Your task to perform on an android device: uninstall "Pluto TV - Live TV and Movies" Image 0: 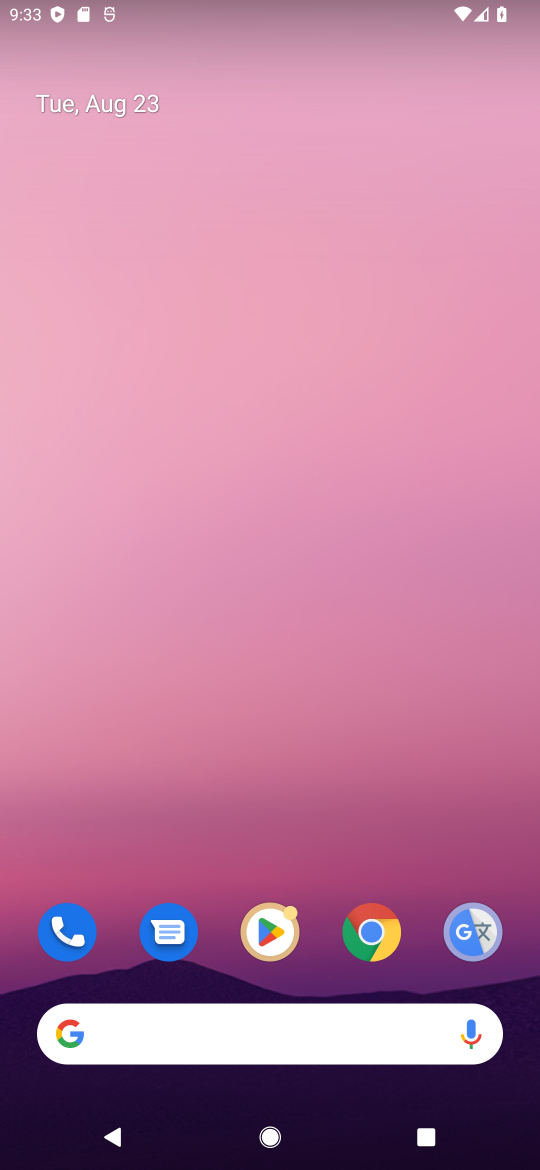
Step 0: click (262, 925)
Your task to perform on an android device: uninstall "Pluto TV - Live TV and Movies" Image 1: 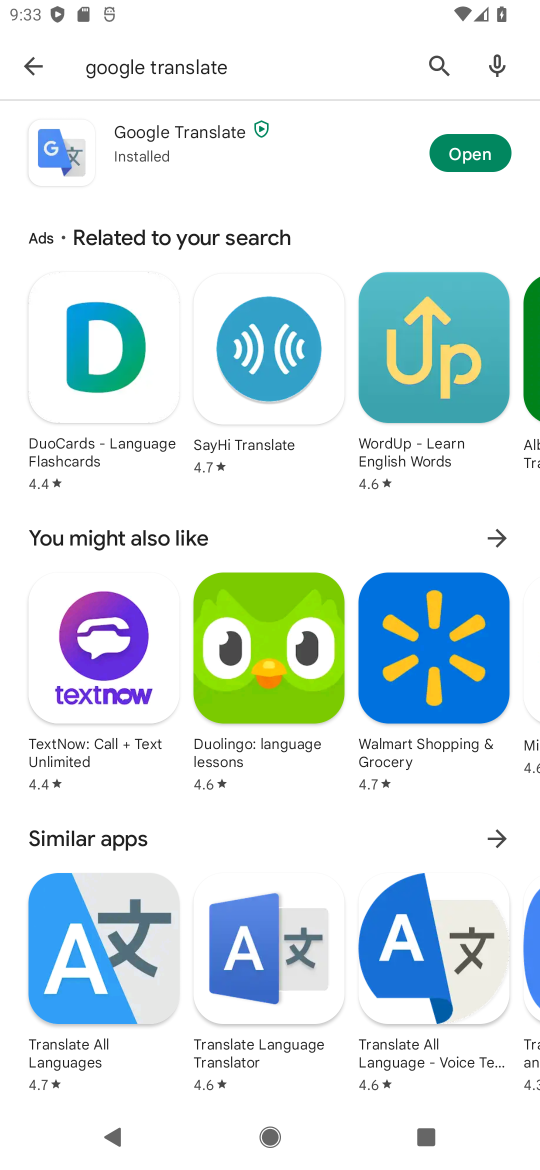
Step 1: click (440, 64)
Your task to perform on an android device: uninstall "Pluto TV - Live TV and Movies" Image 2: 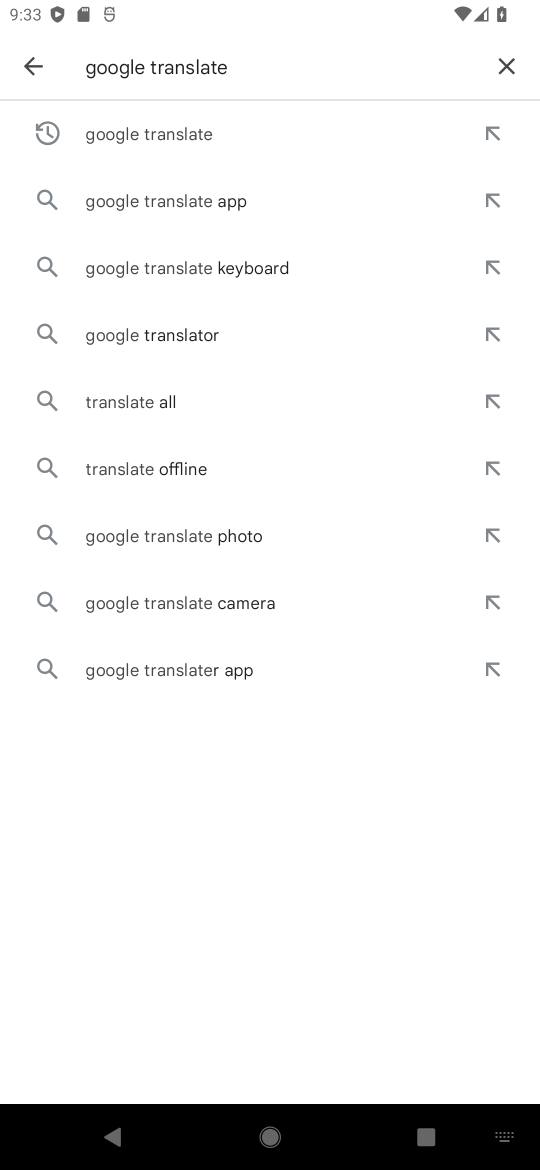
Step 2: click (514, 61)
Your task to perform on an android device: uninstall "Pluto TV - Live TV and Movies" Image 3: 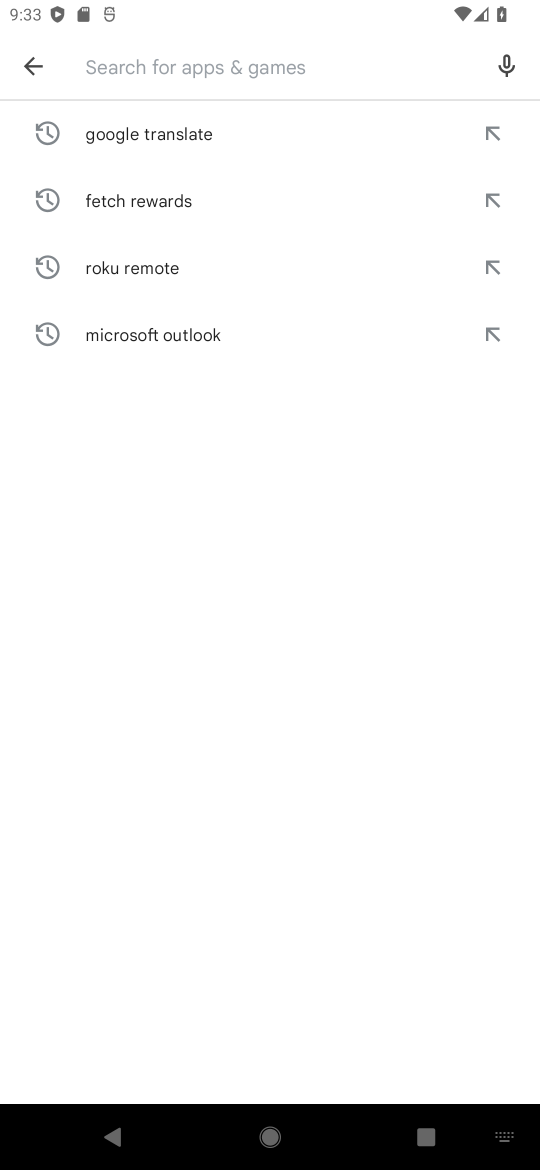
Step 3: click (286, 63)
Your task to perform on an android device: uninstall "Pluto TV - Live TV and Movies" Image 4: 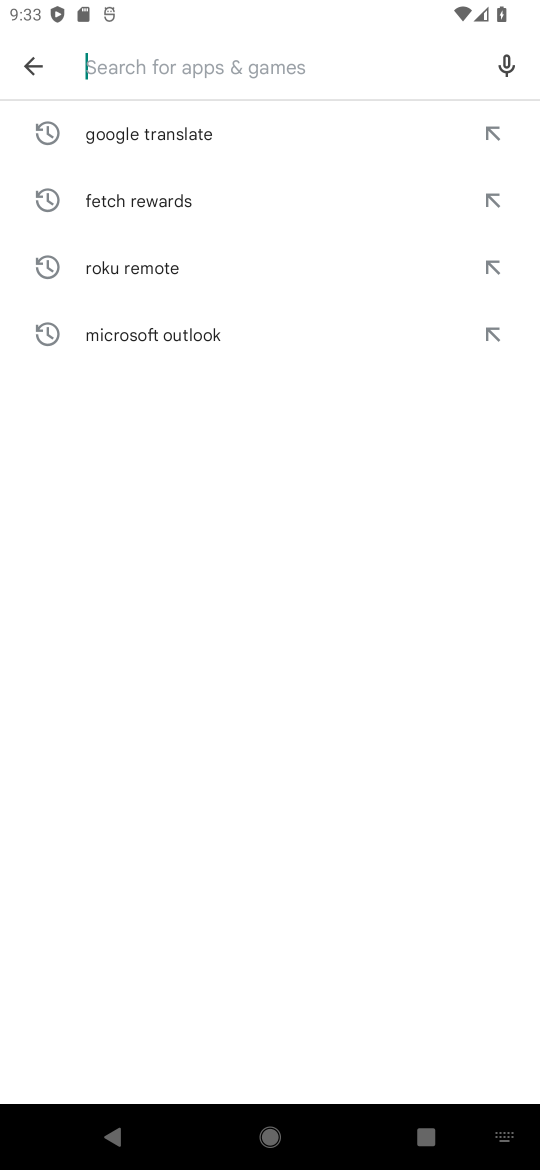
Step 4: type "pluto tv"
Your task to perform on an android device: uninstall "Pluto TV - Live TV and Movies" Image 5: 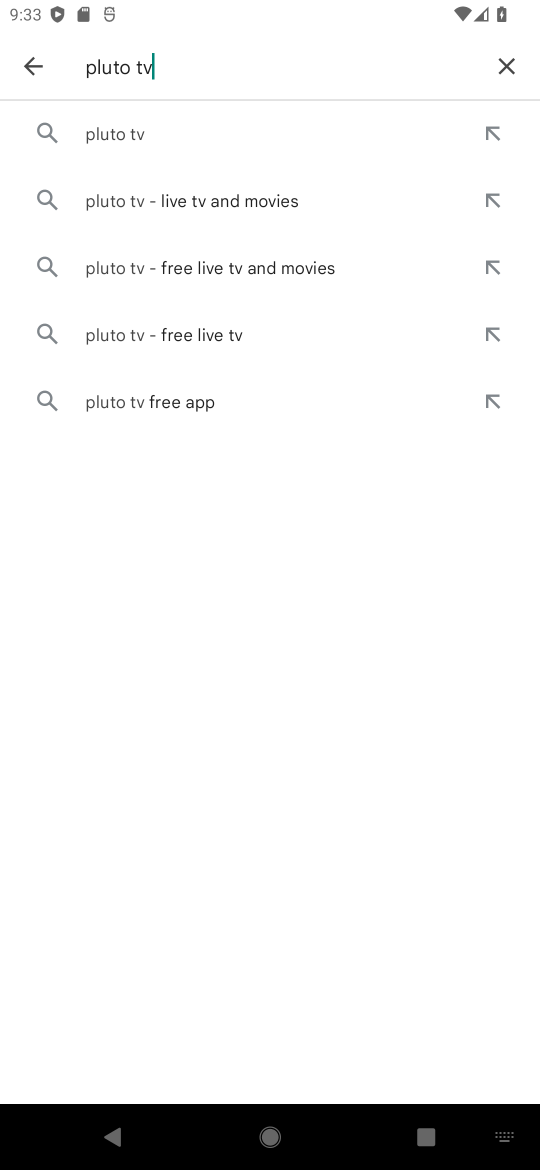
Step 5: click (134, 140)
Your task to perform on an android device: uninstall "Pluto TV - Live TV and Movies" Image 6: 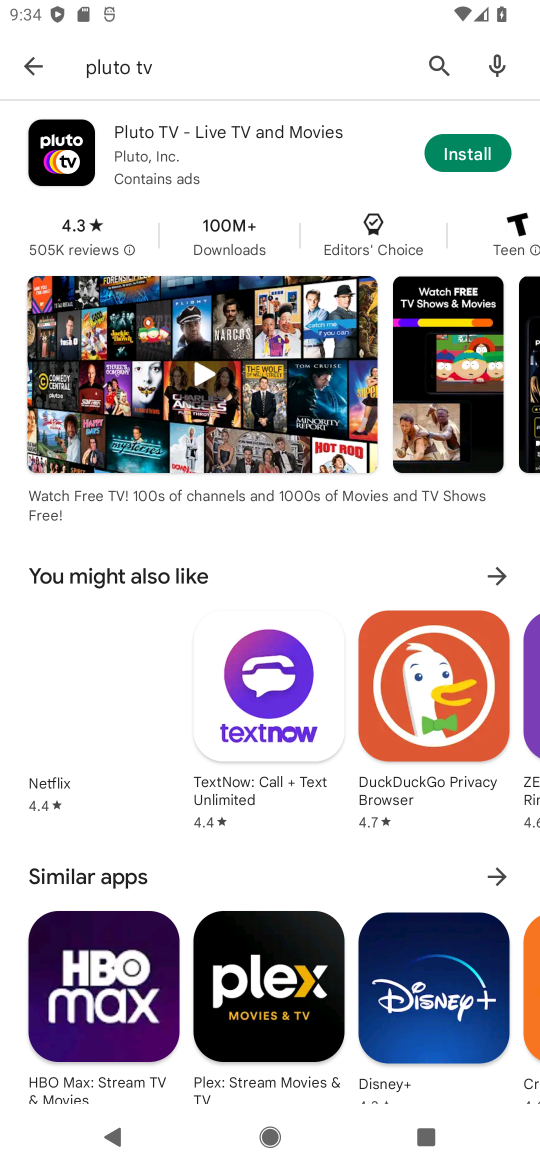
Step 6: task complete